Your task to perform on an android device: Is it going to rain tomorrow? Image 0: 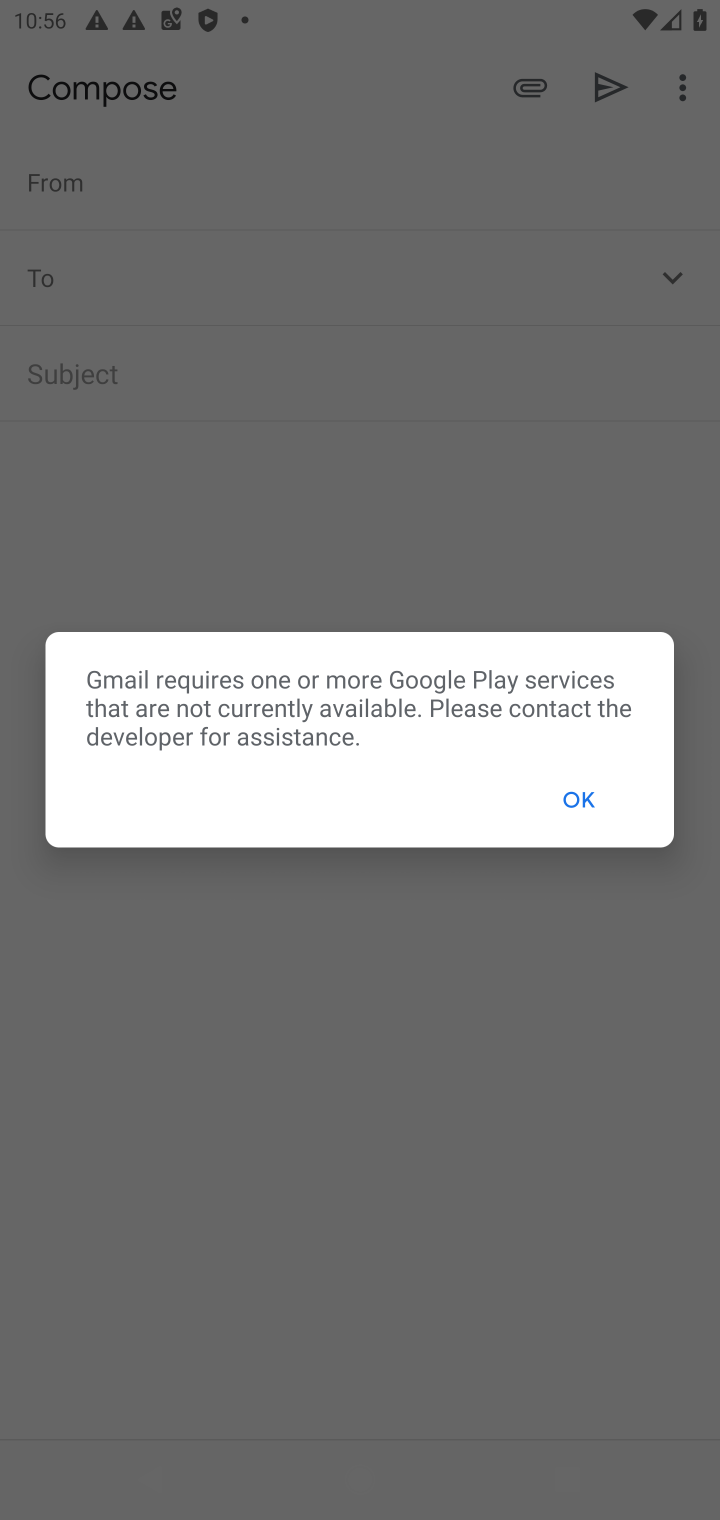
Step 0: press home button
Your task to perform on an android device: Is it going to rain tomorrow? Image 1: 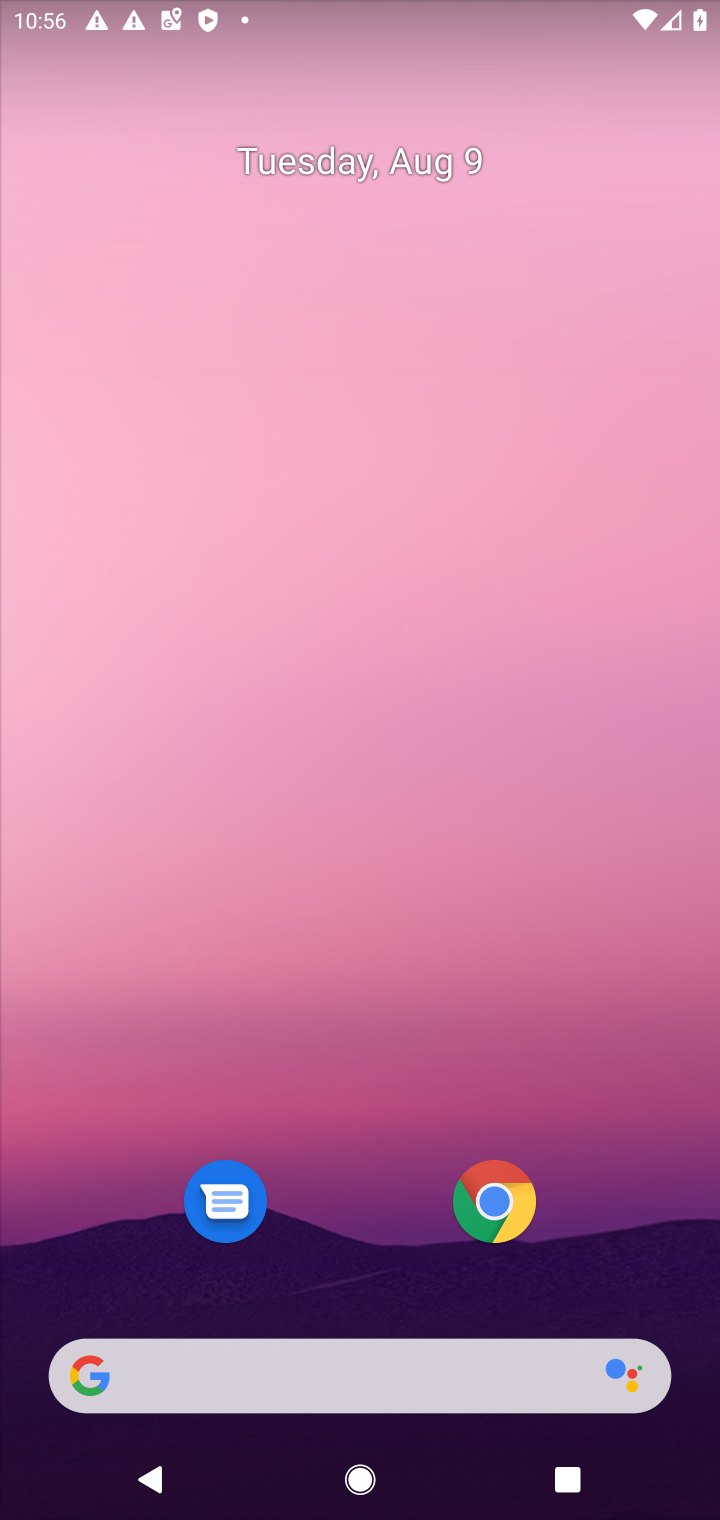
Step 1: click (93, 1394)
Your task to perform on an android device: Is it going to rain tomorrow? Image 2: 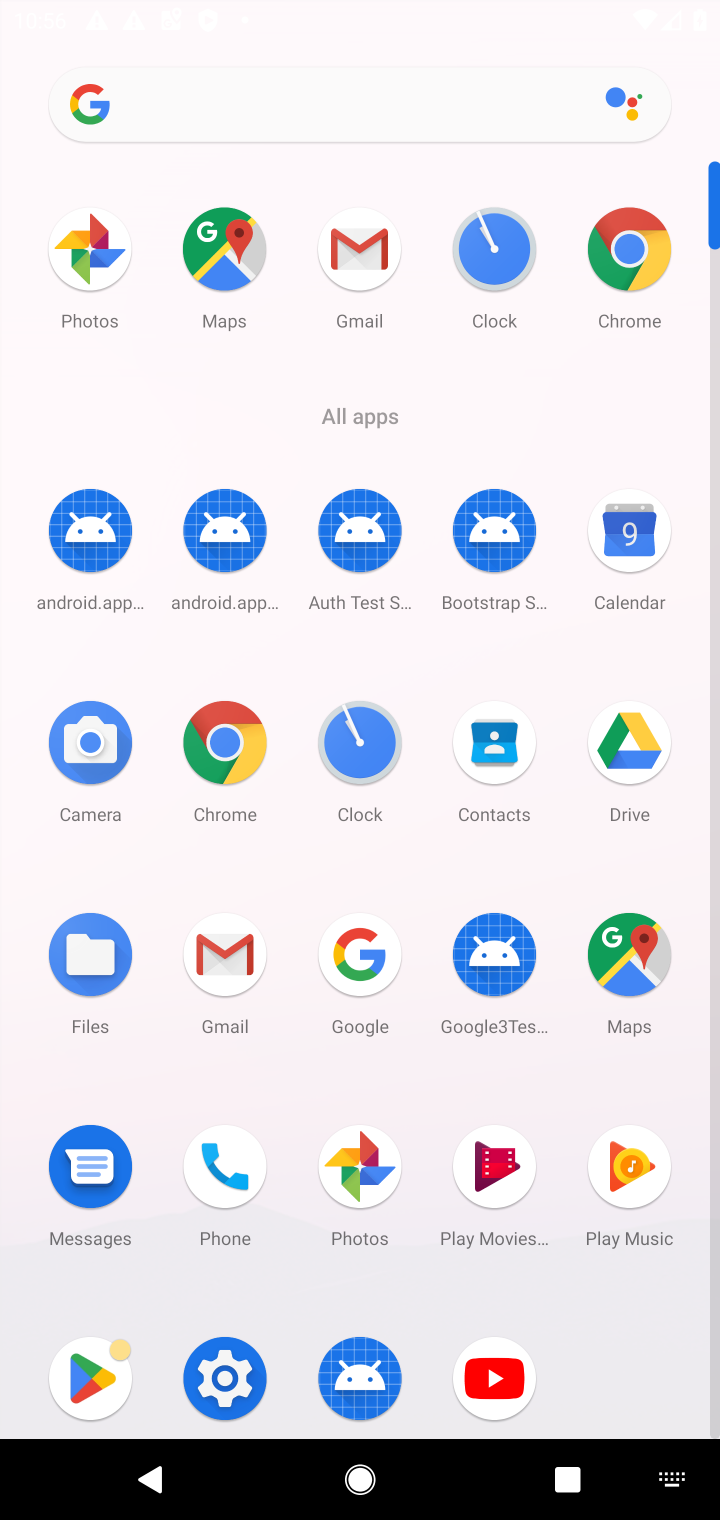
Step 2: click (357, 957)
Your task to perform on an android device: Is it going to rain tomorrow? Image 3: 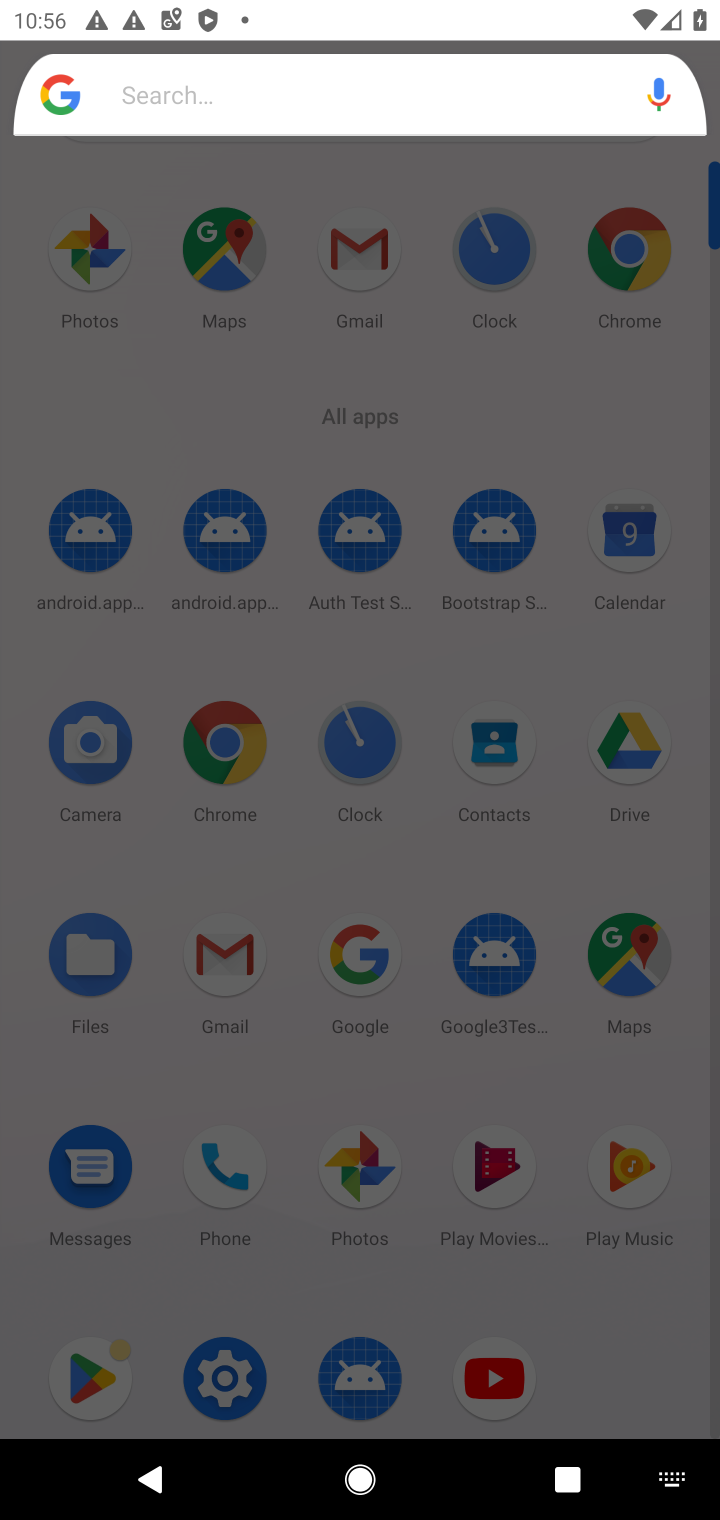
Step 3: click (358, 948)
Your task to perform on an android device: Is it going to rain tomorrow? Image 4: 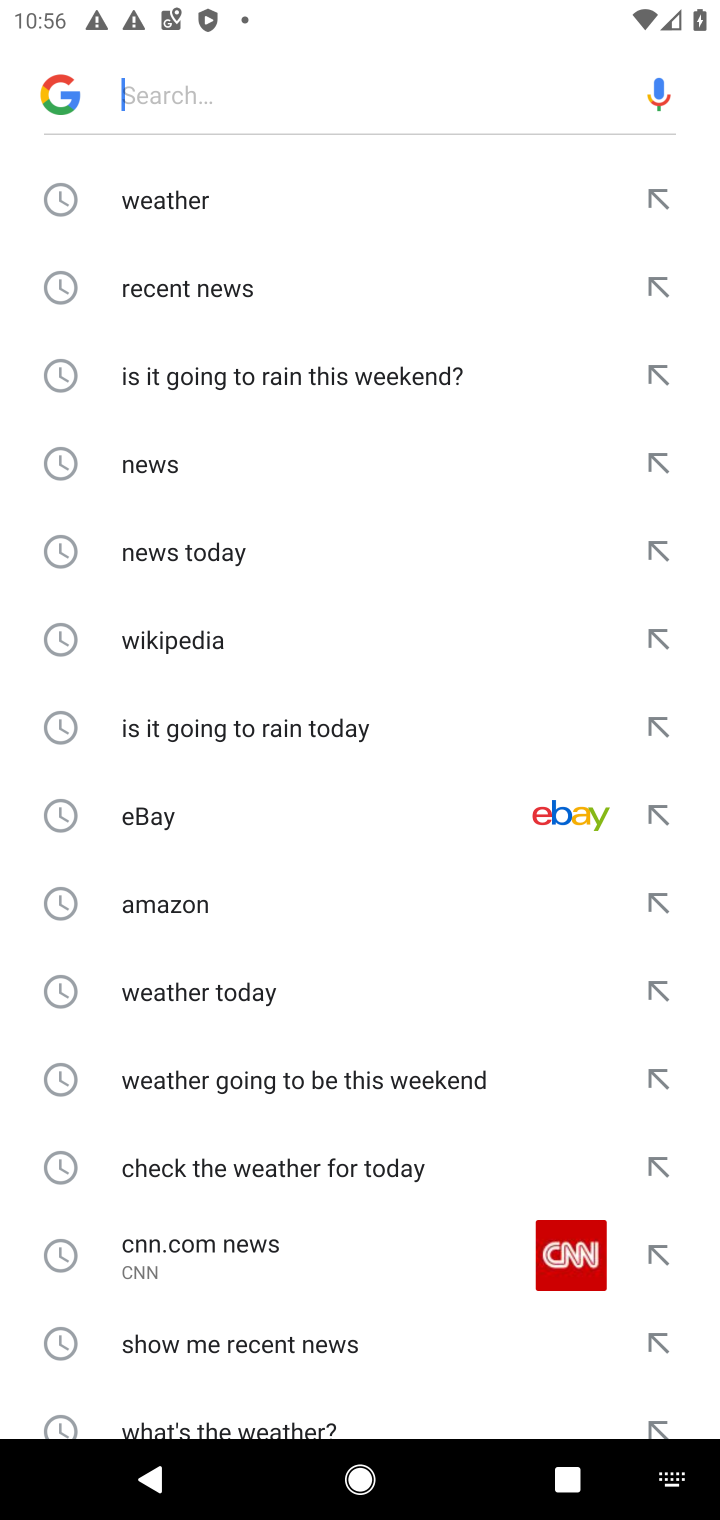
Step 4: type "Is it going to rain tomorrow?"
Your task to perform on an android device: Is it going to rain tomorrow? Image 5: 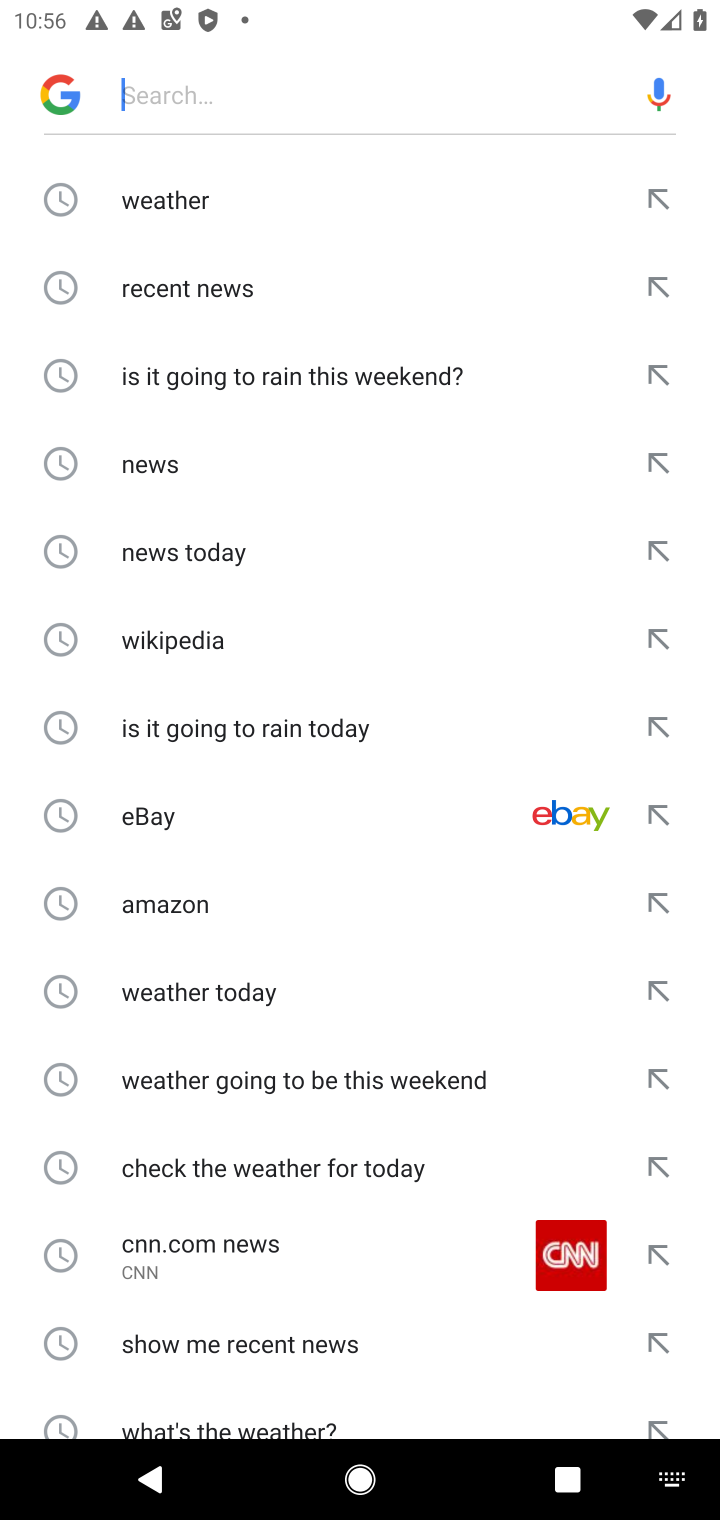
Step 5: click (230, 101)
Your task to perform on an android device: Is it going to rain tomorrow? Image 6: 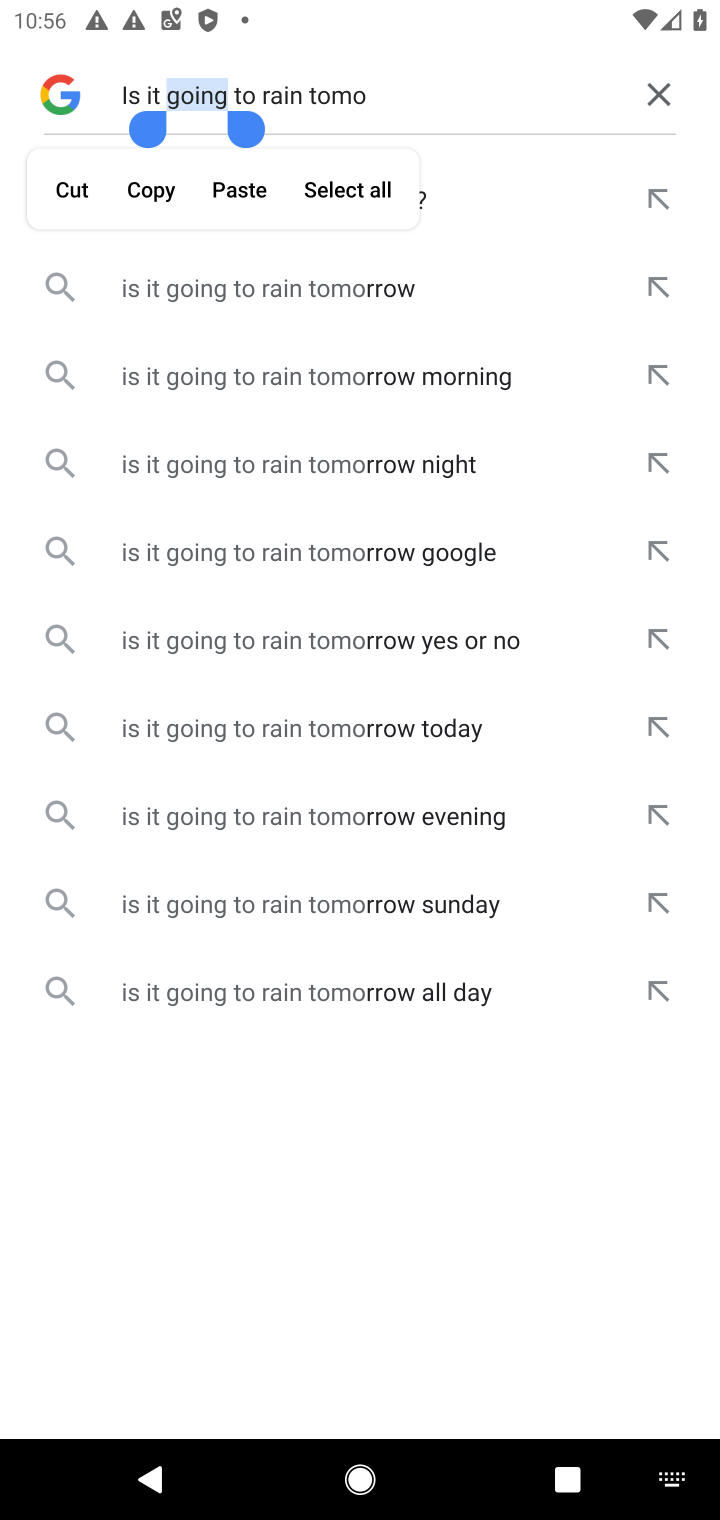
Step 6: click (318, 285)
Your task to perform on an android device: Is it going to rain tomorrow? Image 7: 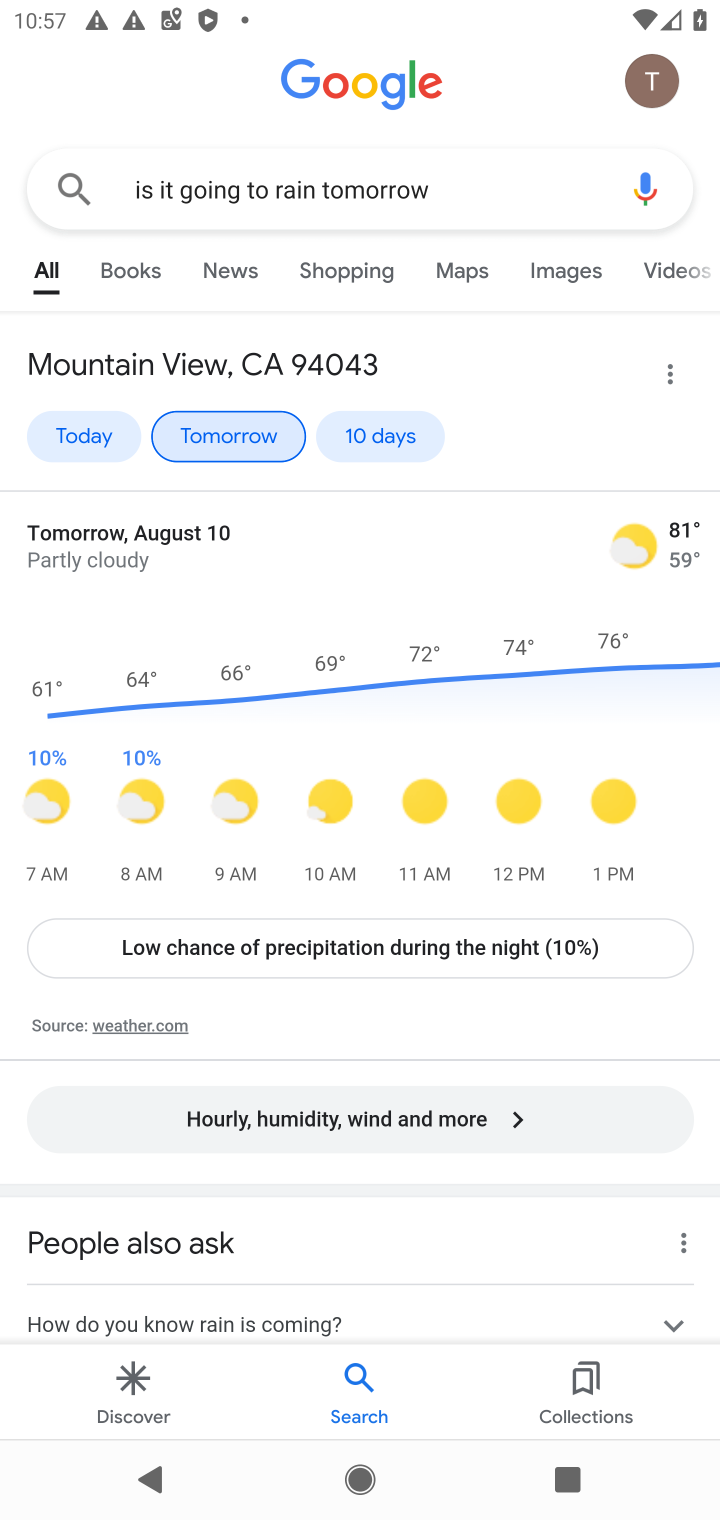
Step 7: task complete